Your task to perform on an android device: Open Yahoo.com Image 0: 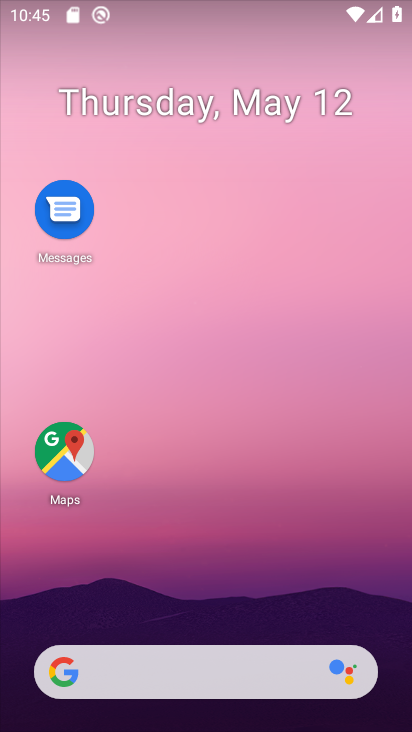
Step 0: drag from (110, 428) to (36, 129)
Your task to perform on an android device: Open Yahoo.com Image 1: 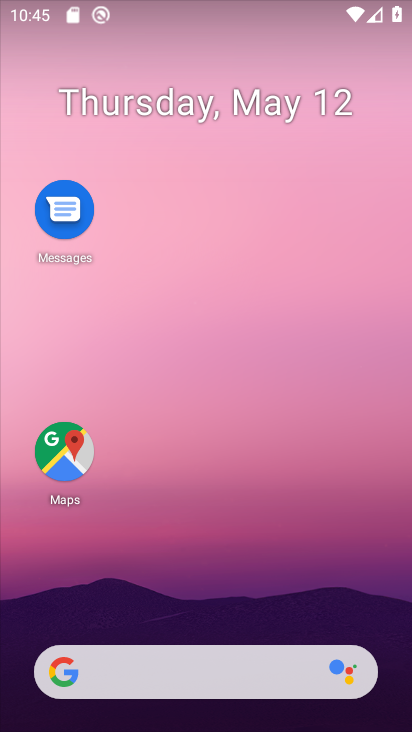
Step 1: drag from (157, 220) to (157, 0)
Your task to perform on an android device: Open Yahoo.com Image 2: 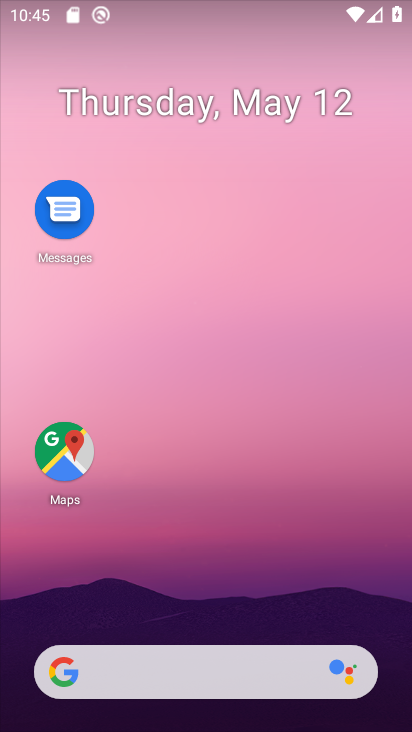
Step 2: drag from (230, 611) to (206, 12)
Your task to perform on an android device: Open Yahoo.com Image 3: 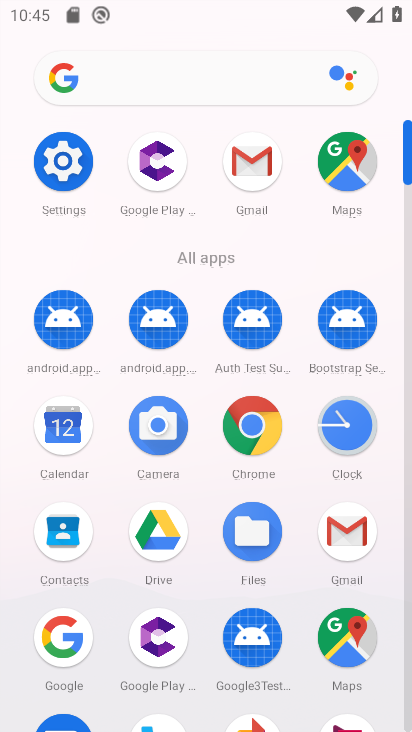
Step 3: drag from (256, 462) to (224, 25)
Your task to perform on an android device: Open Yahoo.com Image 4: 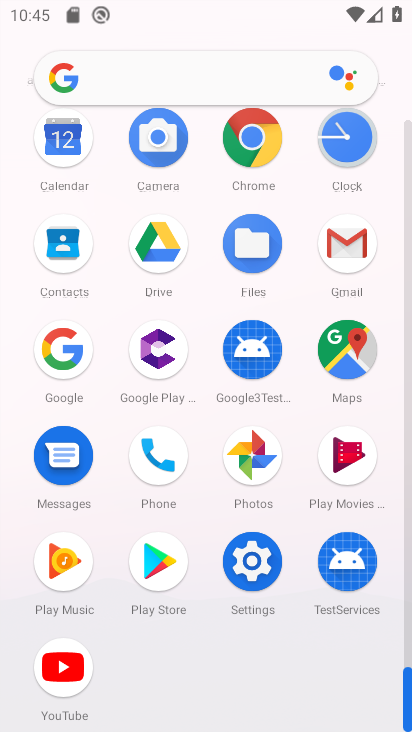
Step 4: drag from (239, 183) to (2, 230)
Your task to perform on an android device: Open Yahoo.com Image 5: 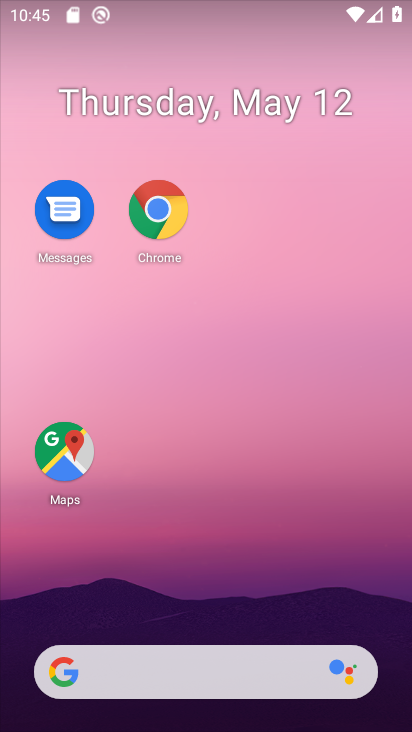
Step 5: click (226, 556)
Your task to perform on an android device: Open Yahoo.com Image 6: 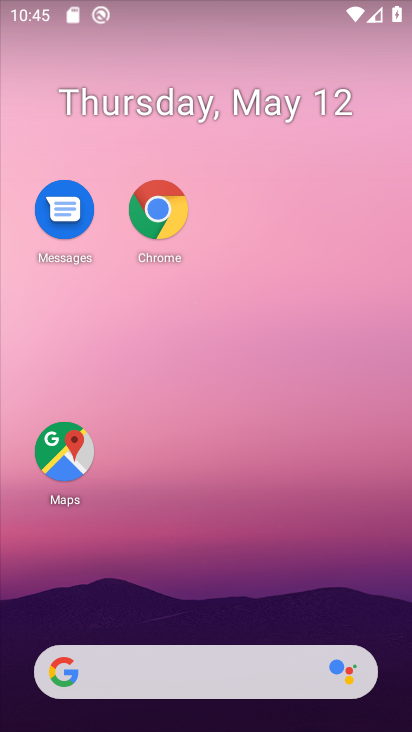
Step 6: click (153, 244)
Your task to perform on an android device: Open Yahoo.com Image 7: 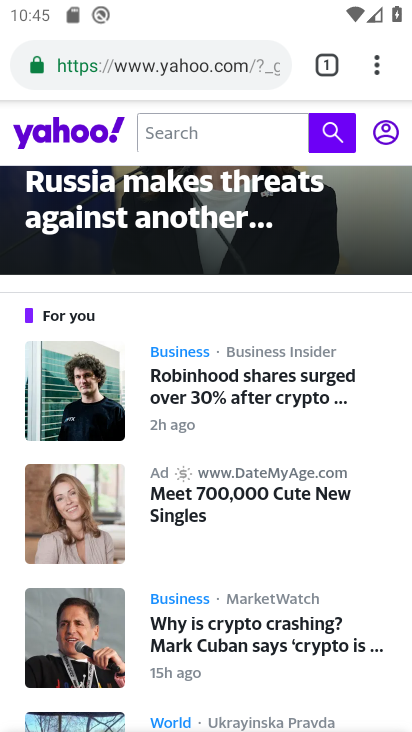
Step 7: task complete